Your task to perform on an android device: Open Maps and search for coffee Image 0: 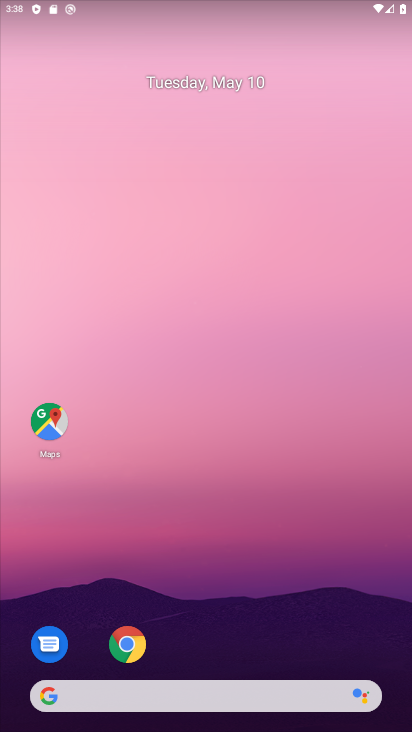
Step 0: click (48, 416)
Your task to perform on an android device: Open Maps and search for coffee Image 1: 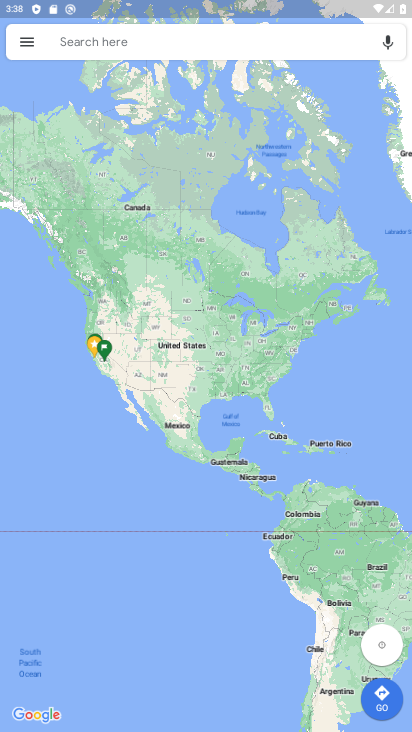
Step 1: click (93, 35)
Your task to perform on an android device: Open Maps and search for coffee Image 2: 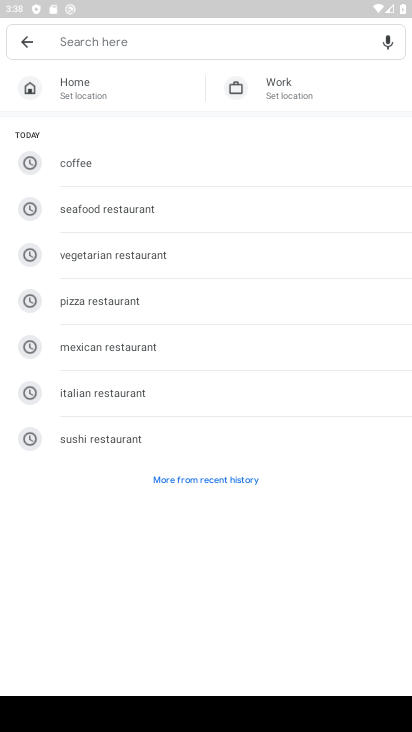
Step 2: click (84, 165)
Your task to perform on an android device: Open Maps and search for coffee Image 3: 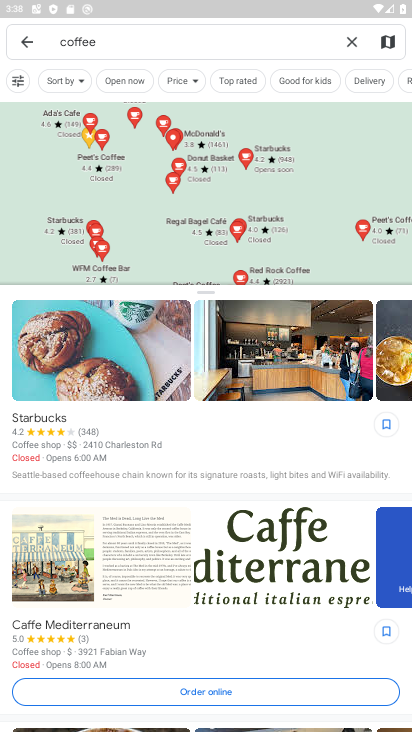
Step 3: task complete